Your task to perform on an android device: Open location settings Image 0: 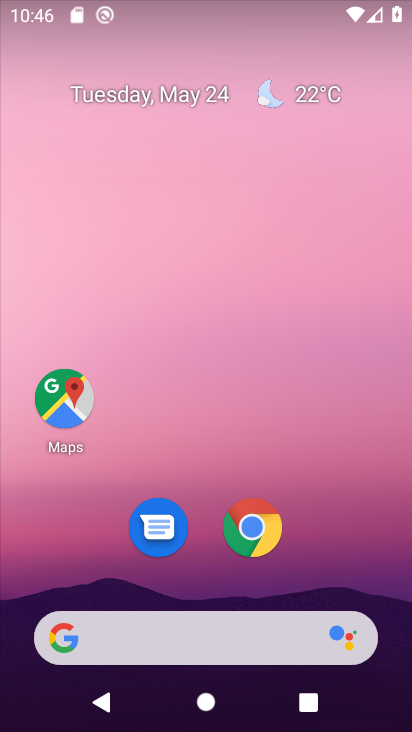
Step 0: press home button
Your task to perform on an android device: Open location settings Image 1: 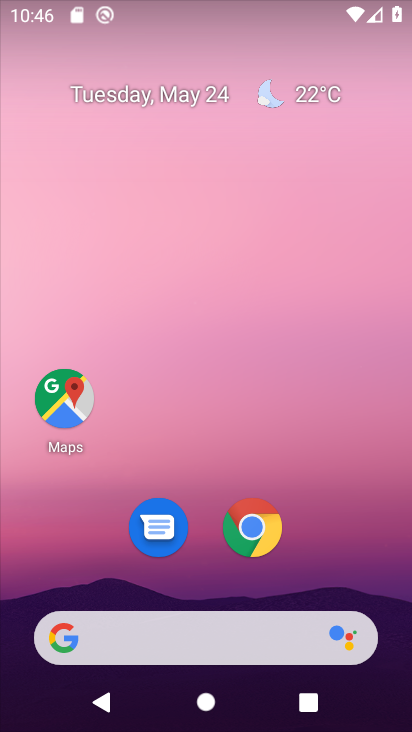
Step 1: drag from (127, 636) to (318, 14)
Your task to perform on an android device: Open location settings Image 2: 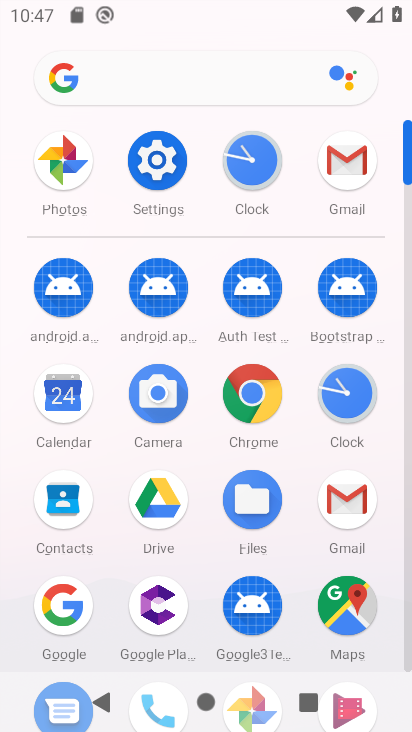
Step 2: click (167, 162)
Your task to perform on an android device: Open location settings Image 3: 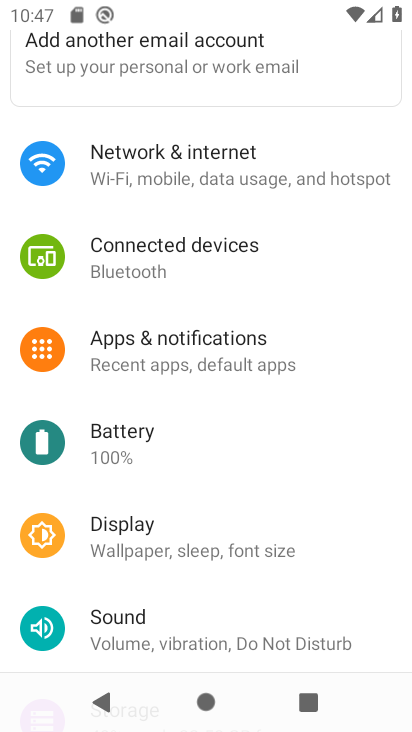
Step 3: drag from (197, 507) to (328, 81)
Your task to perform on an android device: Open location settings Image 4: 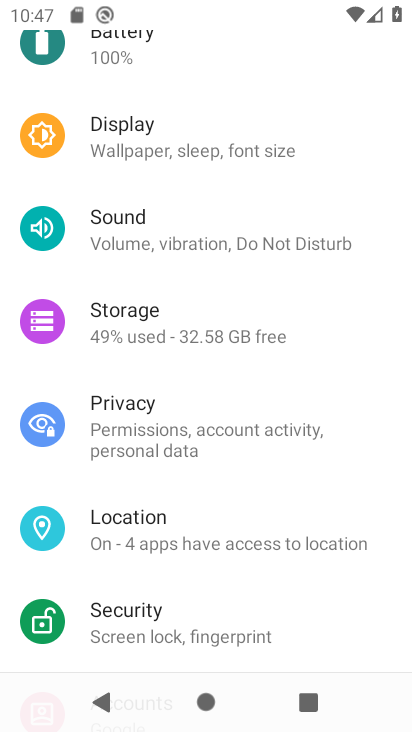
Step 4: click (166, 539)
Your task to perform on an android device: Open location settings Image 5: 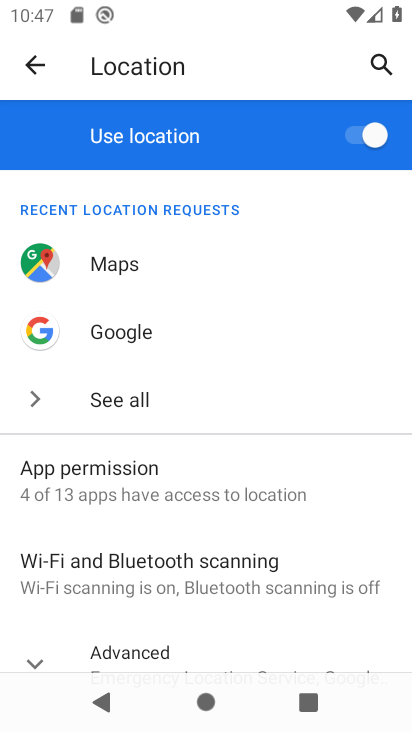
Step 5: task complete